Your task to perform on an android device: Open Google Chrome and open the bookmarks view Image 0: 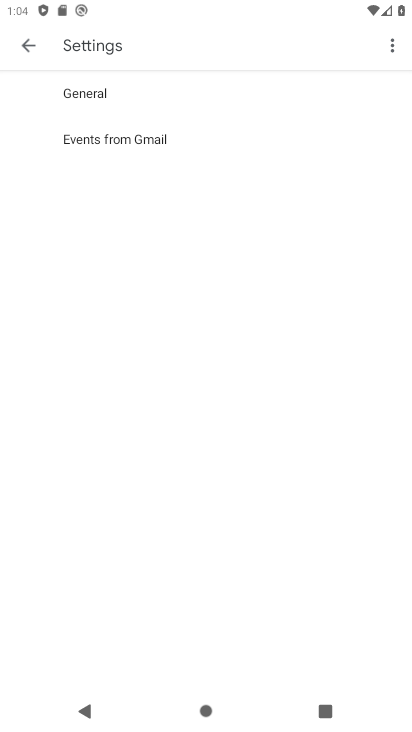
Step 0: click (116, 589)
Your task to perform on an android device: Open Google Chrome and open the bookmarks view Image 1: 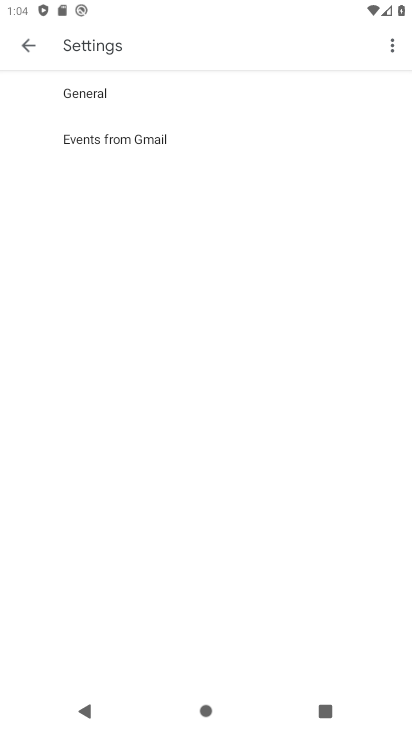
Step 1: press home button
Your task to perform on an android device: Open Google Chrome and open the bookmarks view Image 2: 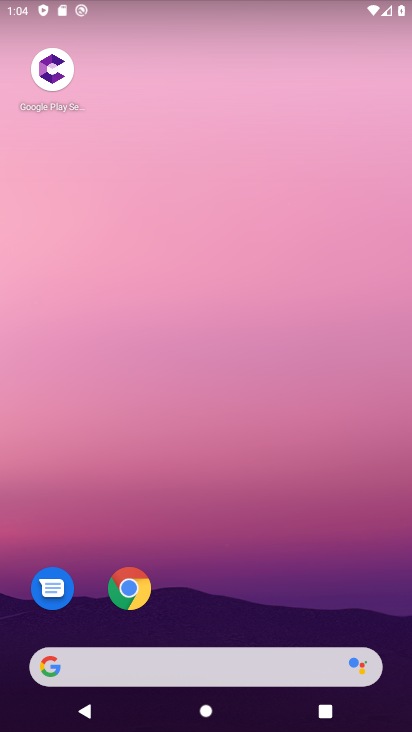
Step 2: click (136, 588)
Your task to perform on an android device: Open Google Chrome and open the bookmarks view Image 3: 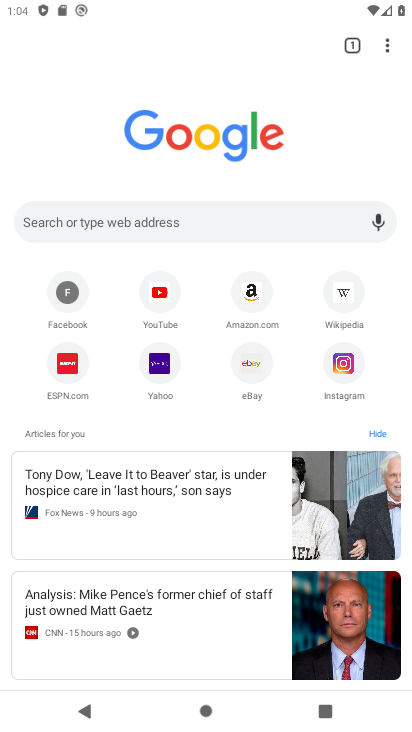
Step 3: click (393, 51)
Your task to perform on an android device: Open Google Chrome and open the bookmarks view Image 4: 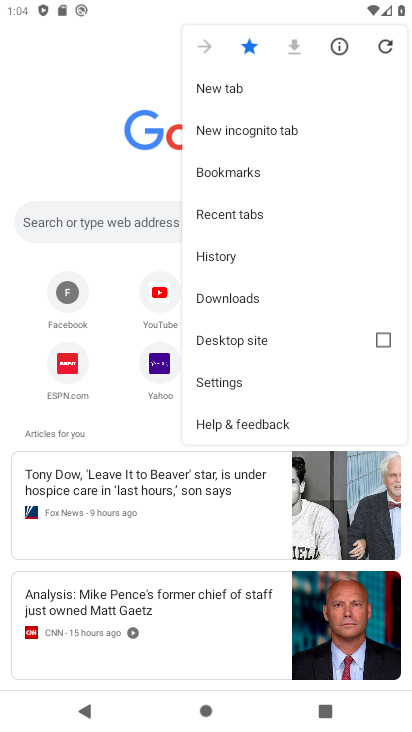
Step 4: click (256, 172)
Your task to perform on an android device: Open Google Chrome and open the bookmarks view Image 5: 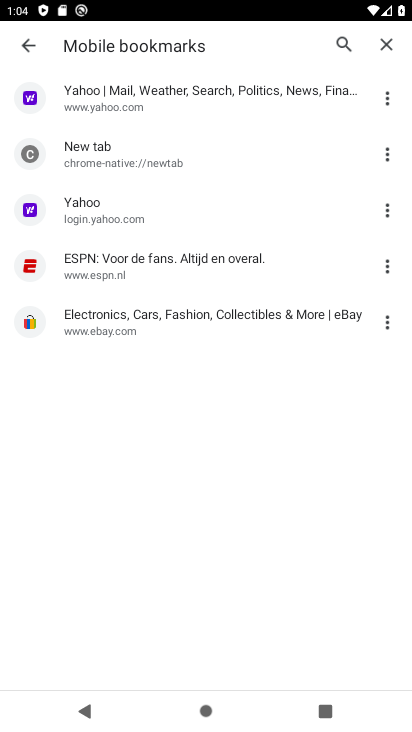
Step 5: task complete